Your task to perform on an android device: Search for Italian restaurants on Maps Image 0: 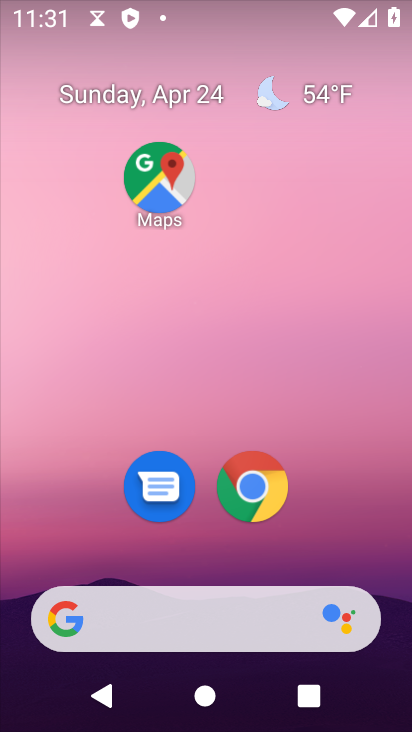
Step 0: click (167, 195)
Your task to perform on an android device: Search for Italian restaurants on Maps Image 1: 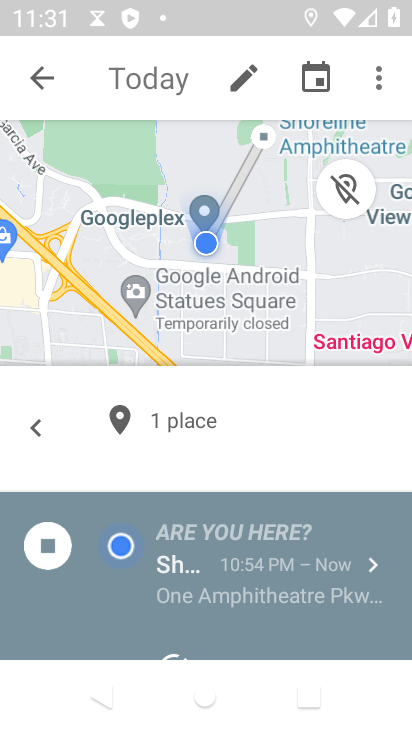
Step 1: click (51, 105)
Your task to perform on an android device: Search for Italian restaurants on Maps Image 2: 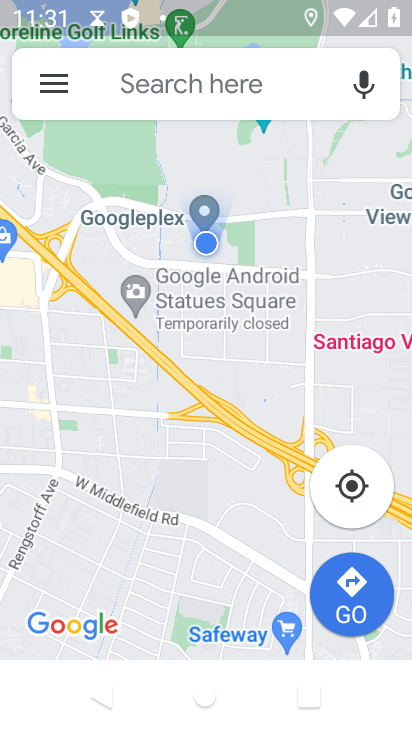
Step 2: click (166, 83)
Your task to perform on an android device: Search for Italian restaurants on Maps Image 3: 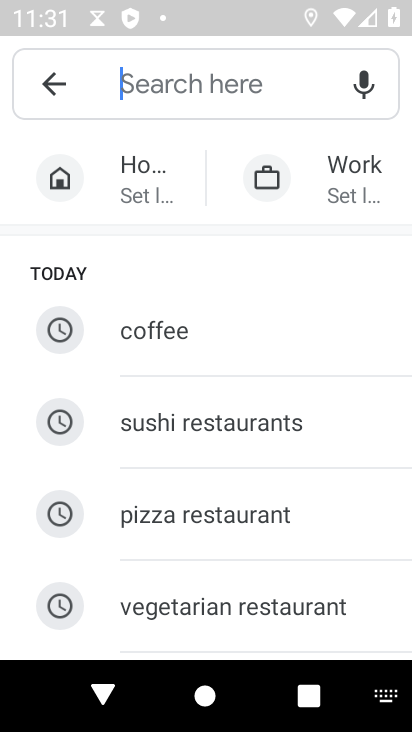
Step 3: drag from (239, 519) to (206, 141)
Your task to perform on an android device: Search for Italian restaurants on Maps Image 4: 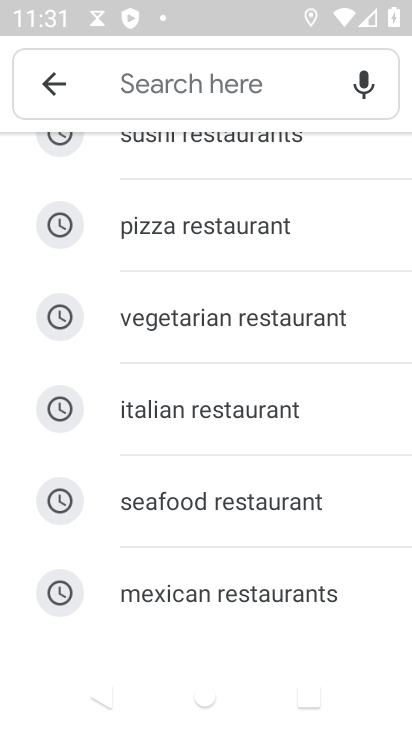
Step 4: drag from (239, 541) to (258, 167)
Your task to perform on an android device: Search for Italian restaurants on Maps Image 5: 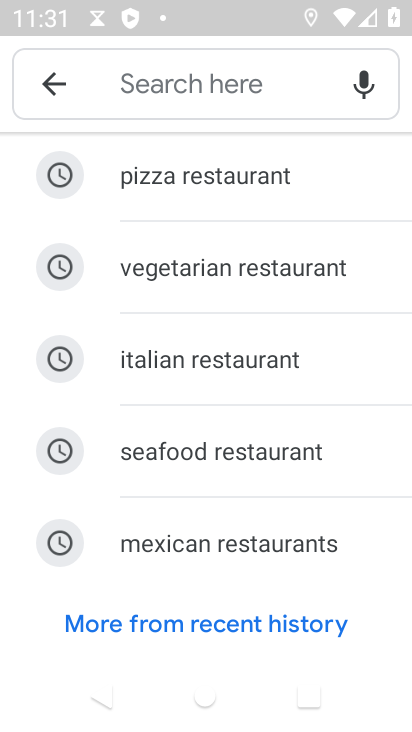
Step 5: click (245, 366)
Your task to perform on an android device: Search for Italian restaurants on Maps Image 6: 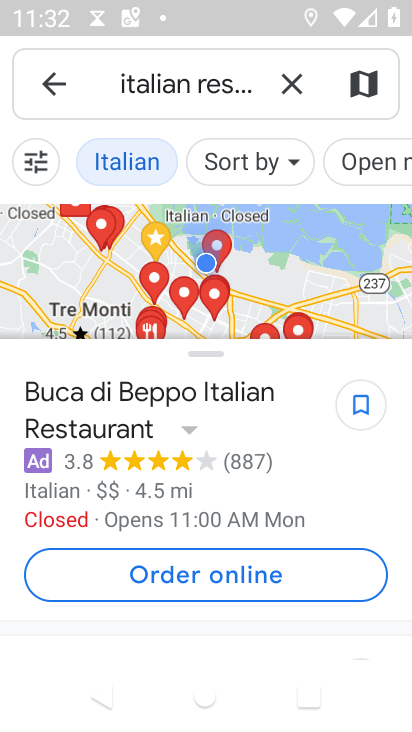
Step 6: task complete